Your task to perform on an android device: turn off sleep mode Image 0: 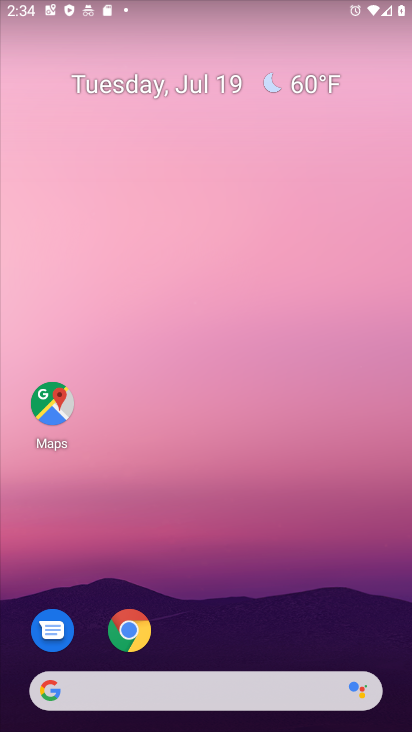
Step 0: drag from (246, 652) to (139, 241)
Your task to perform on an android device: turn off sleep mode Image 1: 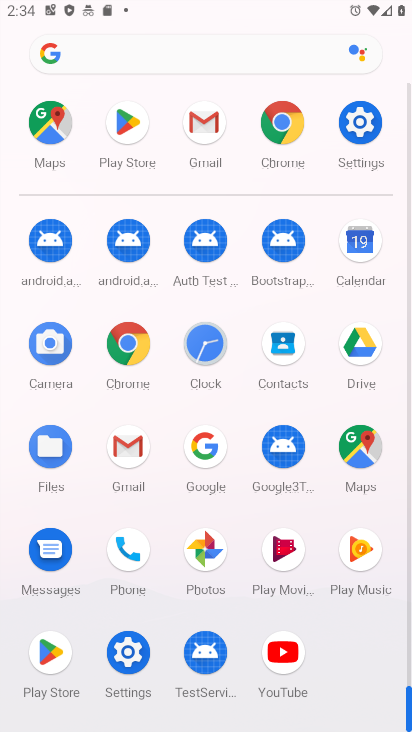
Step 1: click (362, 121)
Your task to perform on an android device: turn off sleep mode Image 2: 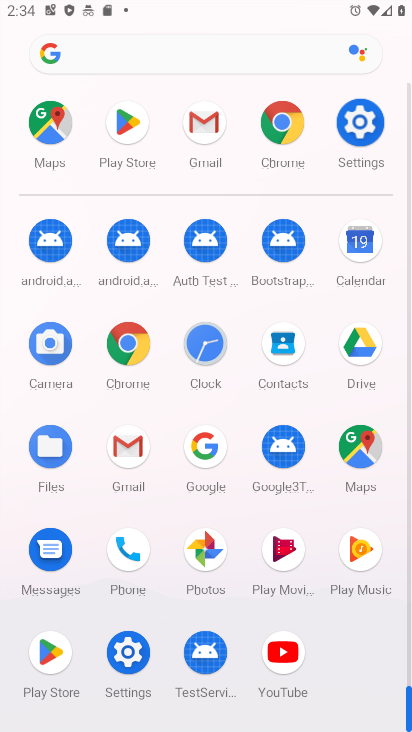
Step 2: click (361, 122)
Your task to perform on an android device: turn off sleep mode Image 3: 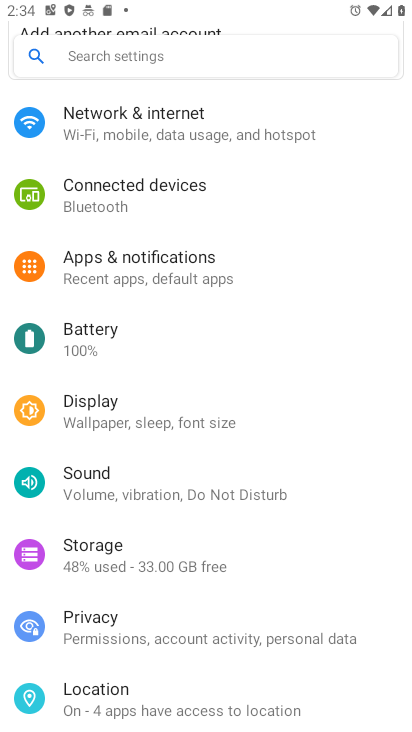
Step 3: drag from (152, 649) to (150, 313)
Your task to perform on an android device: turn off sleep mode Image 4: 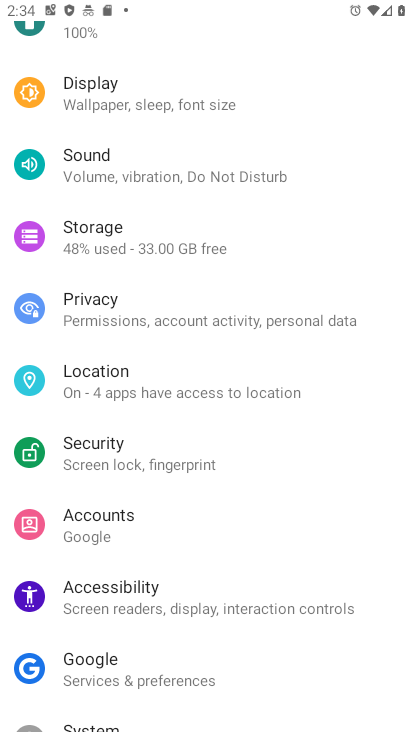
Step 4: drag from (136, 596) to (86, 188)
Your task to perform on an android device: turn off sleep mode Image 5: 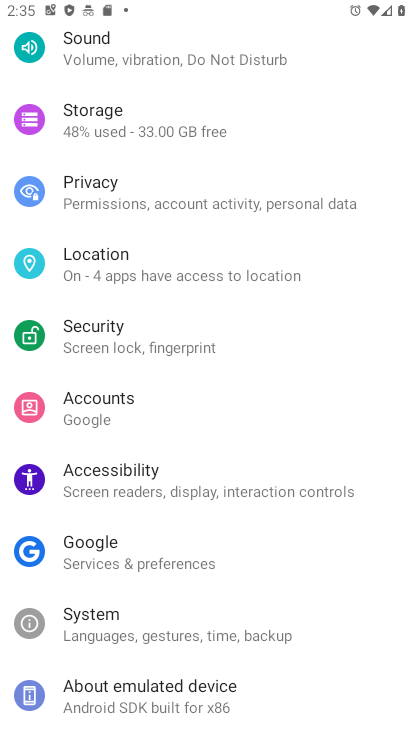
Step 5: drag from (146, 202) to (185, 492)
Your task to perform on an android device: turn off sleep mode Image 6: 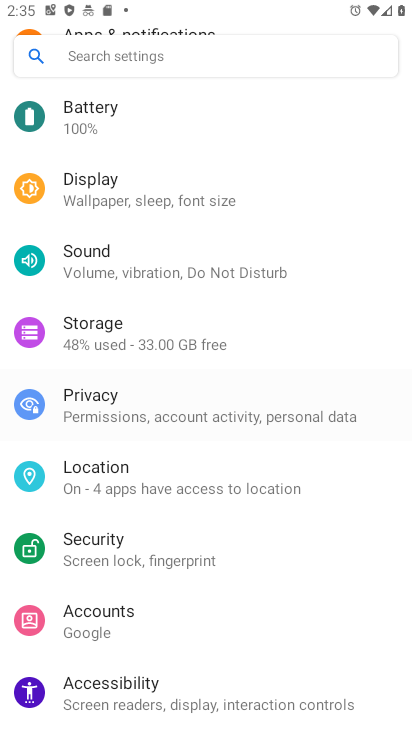
Step 6: drag from (168, 254) to (187, 509)
Your task to perform on an android device: turn off sleep mode Image 7: 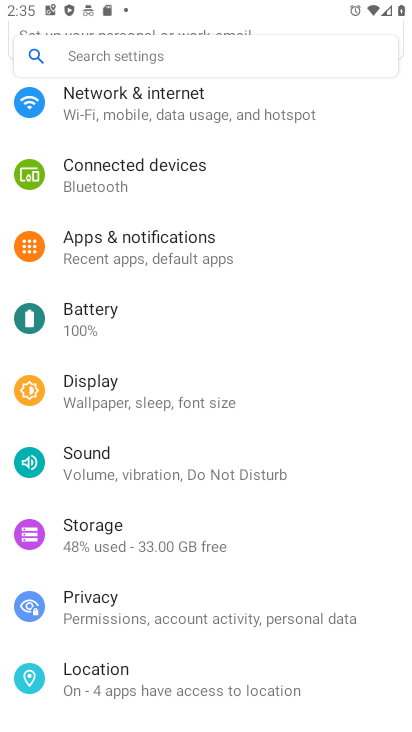
Step 7: click (97, 394)
Your task to perform on an android device: turn off sleep mode Image 8: 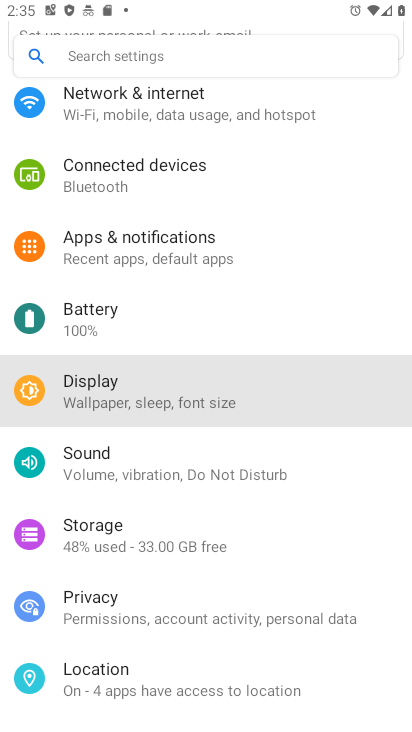
Step 8: click (97, 394)
Your task to perform on an android device: turn off sleep mode Image 9: 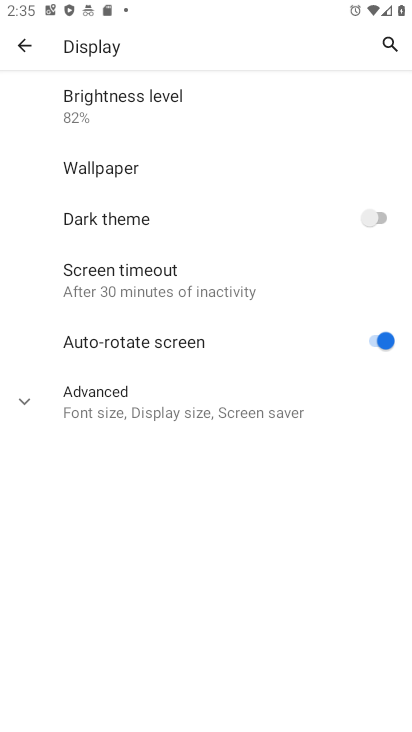
Step 9: click (121, 281)
Your task to perform on an android device: turn off sleep mode Image 10: 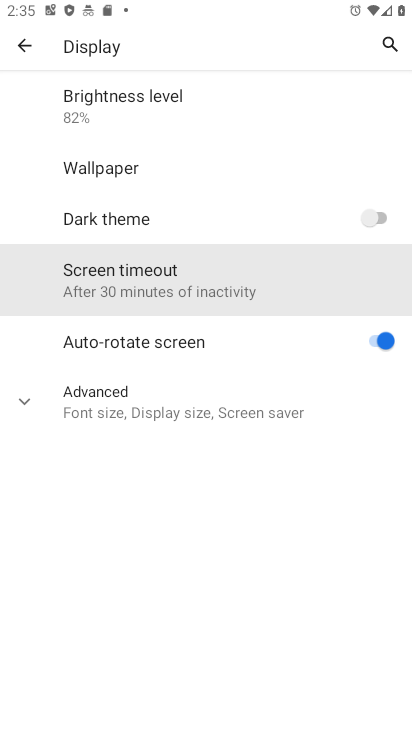
Step 10: click (122, 283)
Your task to perform on an android device: turn off sleep mode Image 11: 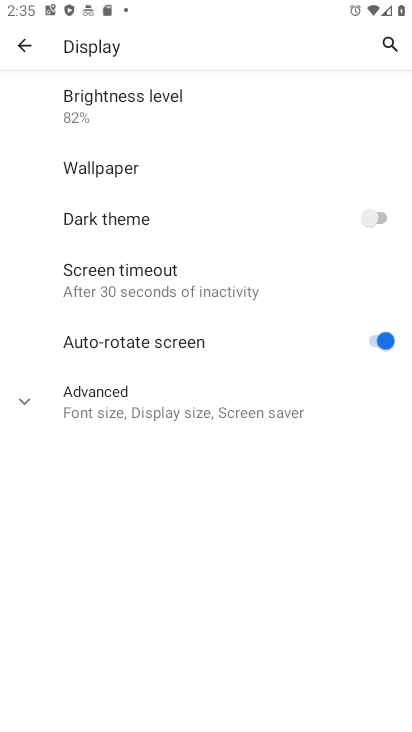
Step 11: click (113, 281)
Your task to perform on an android device: turn off sleep mode Image 12: 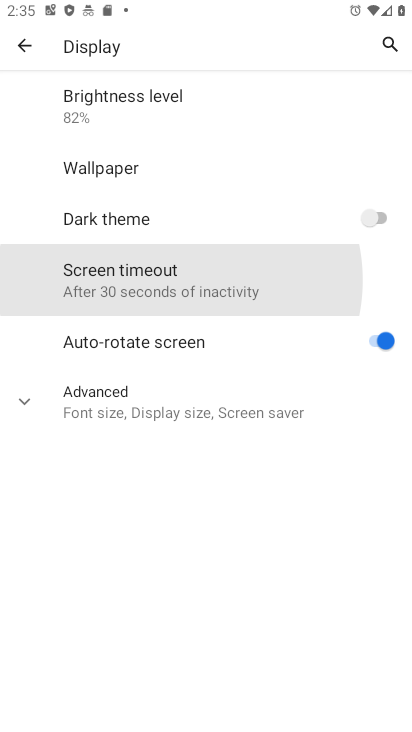
Step 12: click (114, 281)
Your task to perform on an android device: turn off sleep mode Image 13: 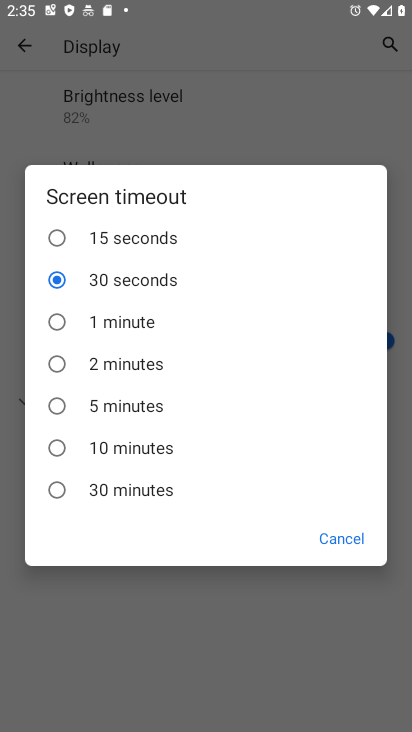
Step 13: task complete